Your task to perform on an android device: turn on priority inbox in the gmail app Image 0: 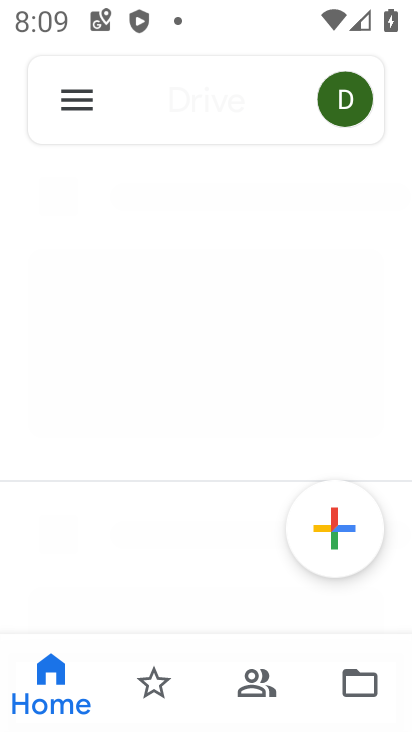
Step 0: drag from (199, 664) to (178, 207)
Your task to perform on an android device: turn on priority inbox in the gmail app Image 1: 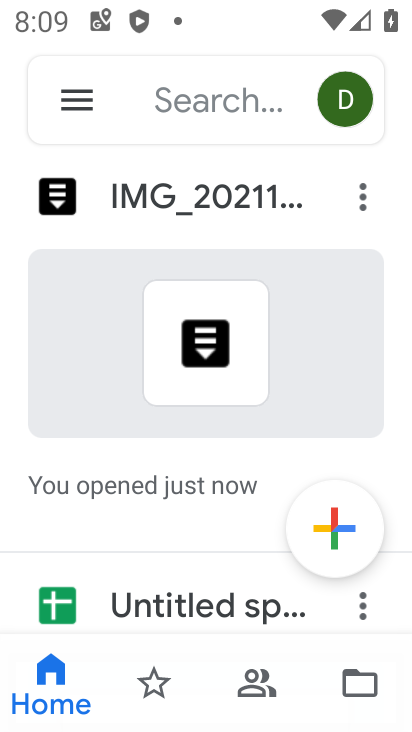
Step 1: press home button
Your task to perform on an android device: turn on priority inbox in the gmail app Image 2: 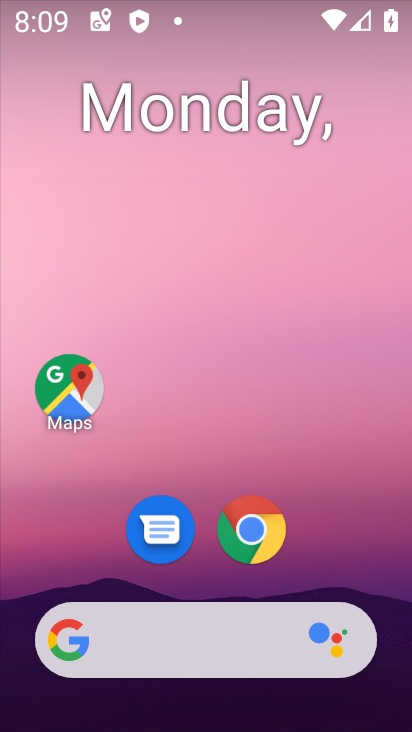
Step 2: drag from (212, 610) to (207, 284)
Your task to perform on an android device: turn on priority inbox in the gmail app Image 3: 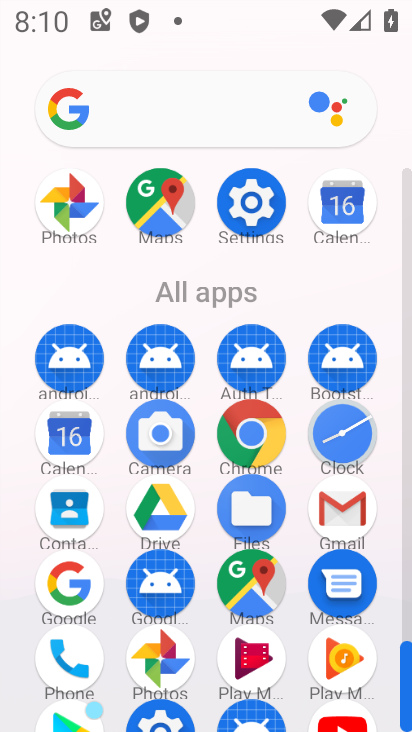
Step 3: click (335, 515)
Your task to perform on an android device: turn on priority inbox in the gmail app Image 4: 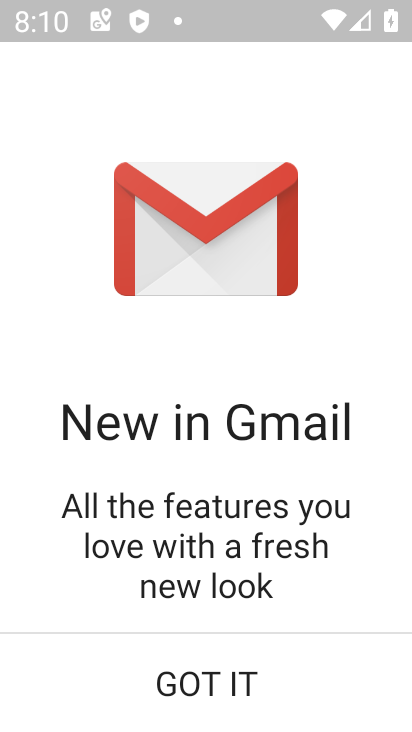
Step 4: click (201, 650)
Your task to perform on an android device: turn on priority inbox in the gmail app Image 5: 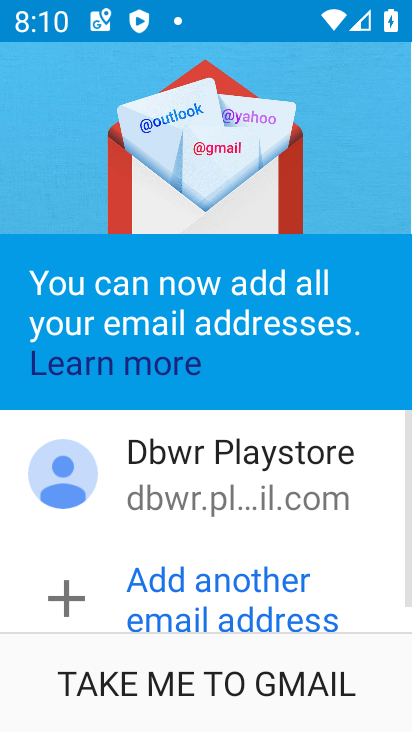
Step 5: click (183, 688)
Your task to perform on an android device: turn on priority inbox in the gmail app Image 6: 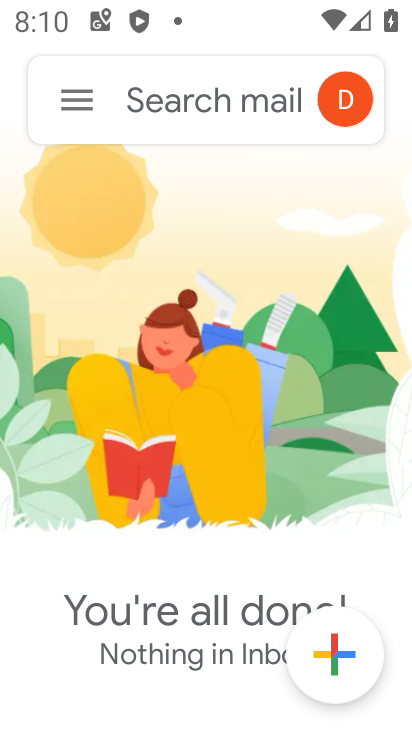
Step 6: click (89, 106)
Your task to perform on an android device: turn on priority inbox in the gmail app Image 7: 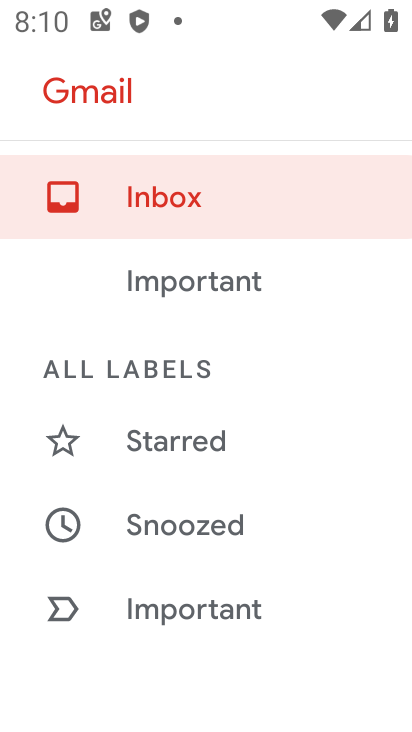
Step 7: drag from (224, 605) to (147, 151)
Your task to perform on an android device: turn on priority inbox in the gmail app Image 8: 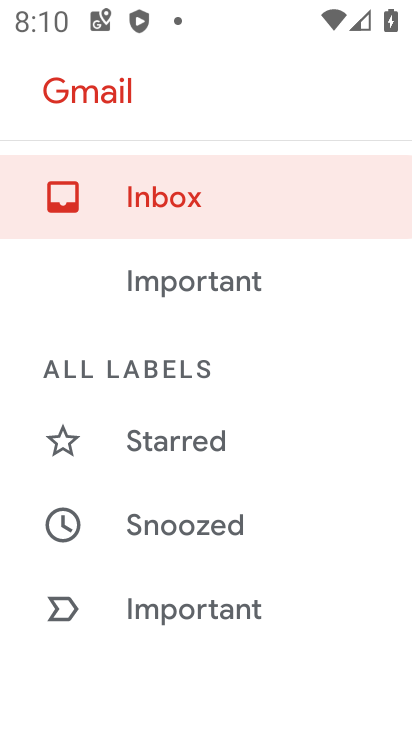
Step 8: drag from (191, 675) to (142, 276)
Your task to perform on an android device: turn on priority inbox in the gmail app Image 9: 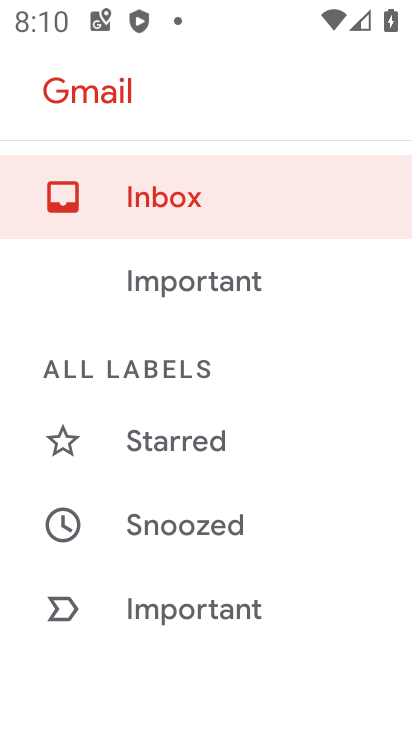
Step 9: drag from (165, 584) to (249, 193)
Your task to perform on an android device: turn on priority inbox in the gmail app Image 10: 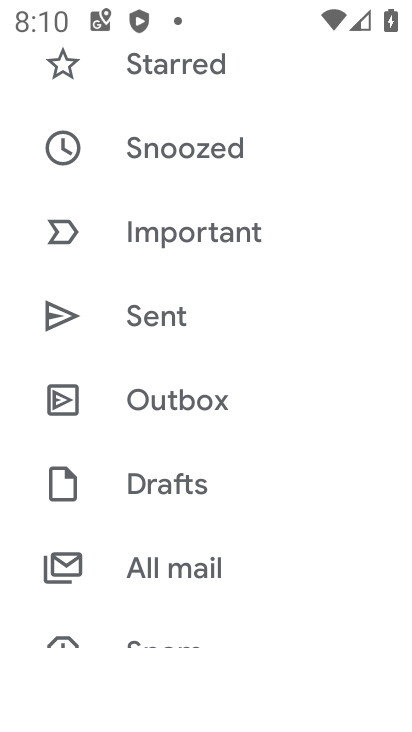
Step 10: drag from (206, 611) to (296, 205)
Your task to perform on an android device: turn on priority inbox in the gmail app Image 11: 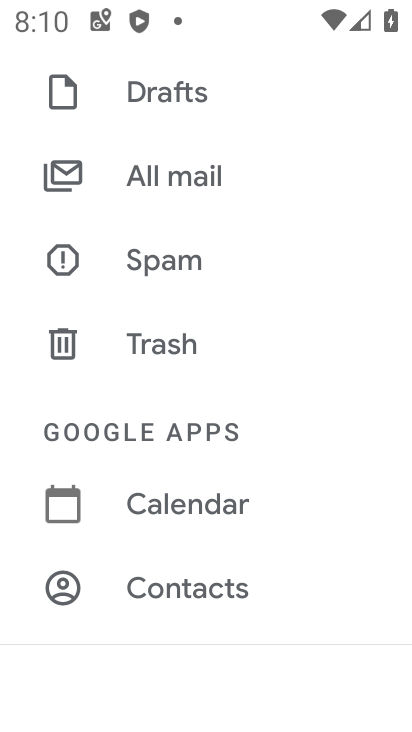
Step 11: drag from (186, 562) to (278, 42)
Your task to perform on an android device: turn on priority inbox in the gmail app Image 12: 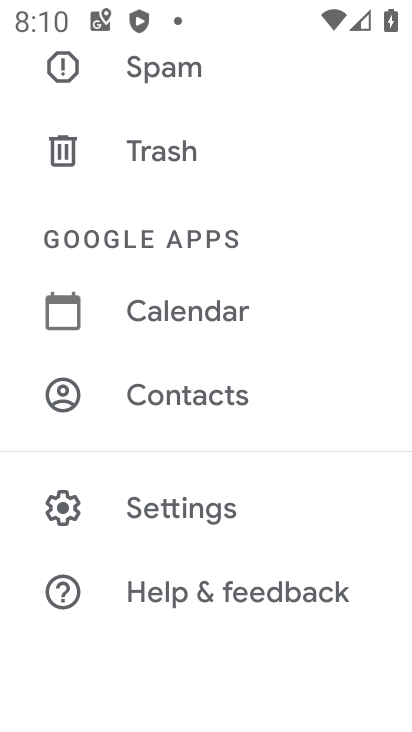
Step 12: click (157, 508)
Your task to perform on an android device: turn on priority inbox in the gmail app Image 13: 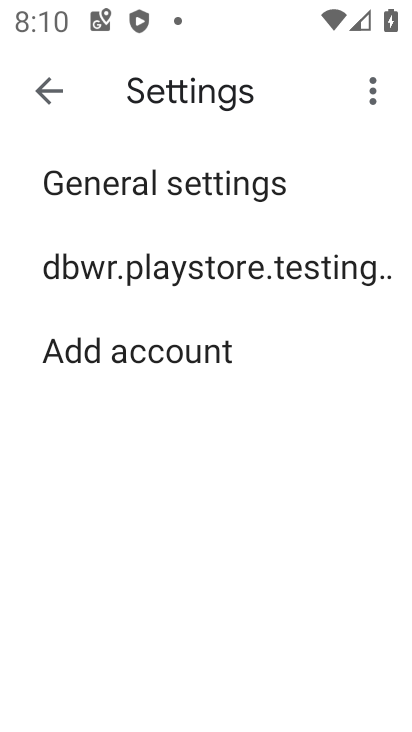
Step 13: click (214, 274)
Your task to perform on an android device: turn on priority inbox in the gmail app Image 14: 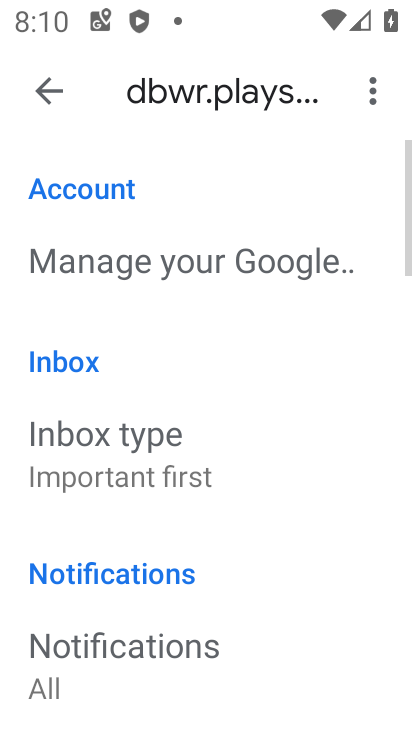
Step 14: click (175, 474)
Your task to perform on an android device: turn on priority inbox in the gmail app Image 15: 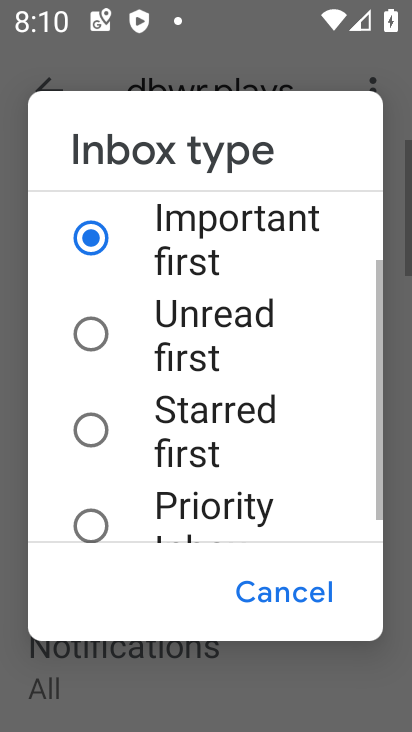
Step 15: click (155, 516)
Your task to perform on an android device: turn on priority inbox in the gmail app Image 16: 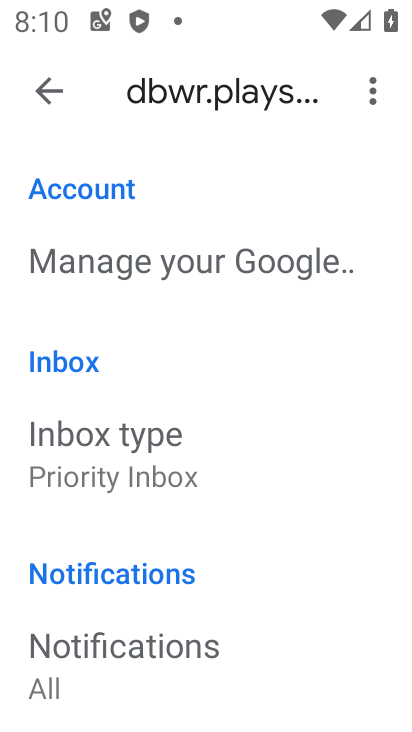
Step 16: task complete